Your task to perform on an android device: Show me recent news Image 0: 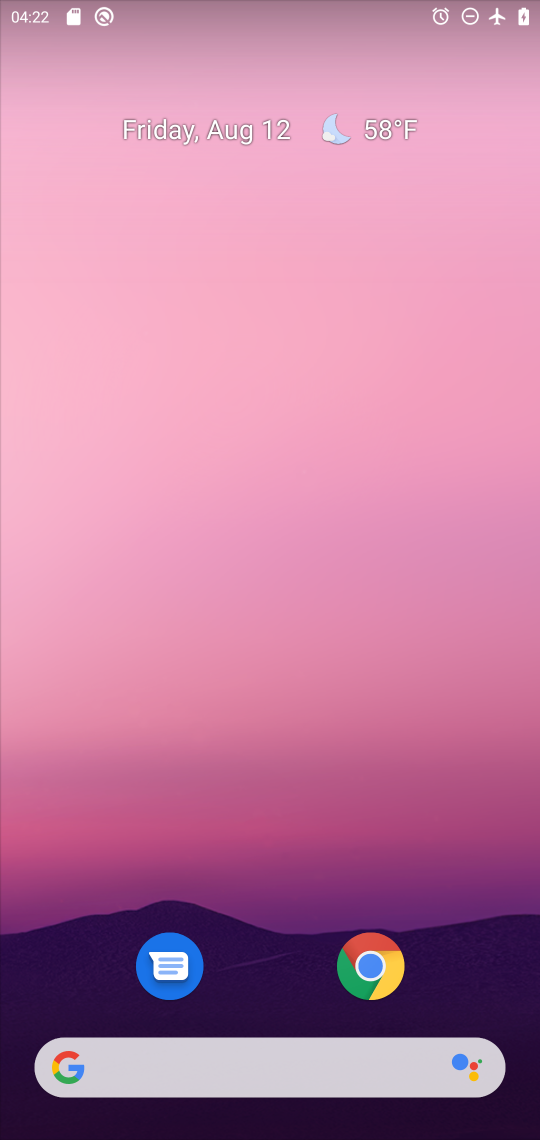
Step 0: drag from (279, 855) to (250, 39)
Your task to perform on an android device: Show me recent news Image 1: 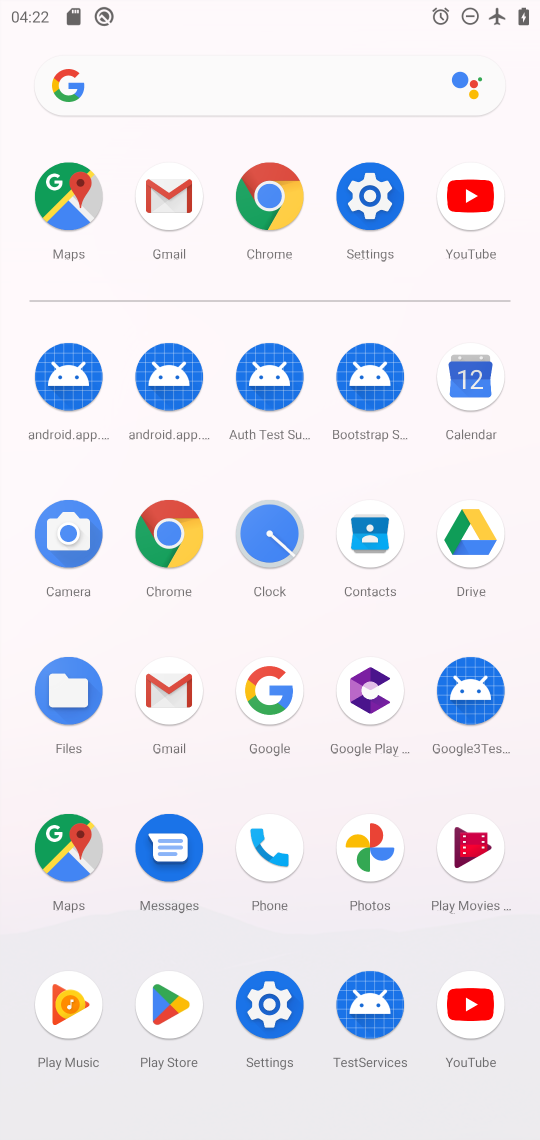
Step 1: click (171, 537)
Your task to perform on an android device: Show me recent news Image 2: 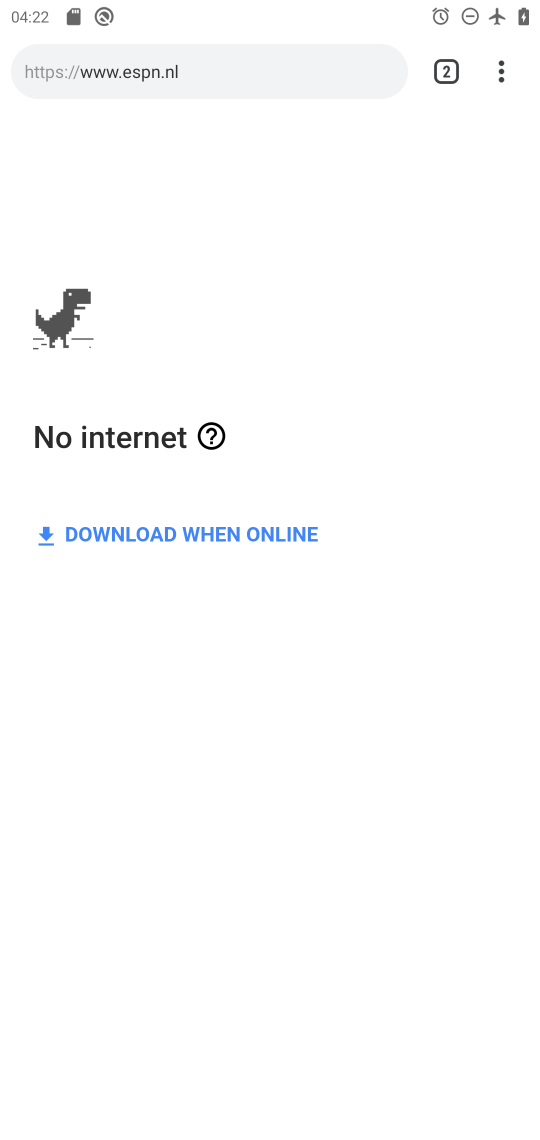
Step 2: click (285, 55)
Your task to perform on an android device: Show me recent news Image 3: 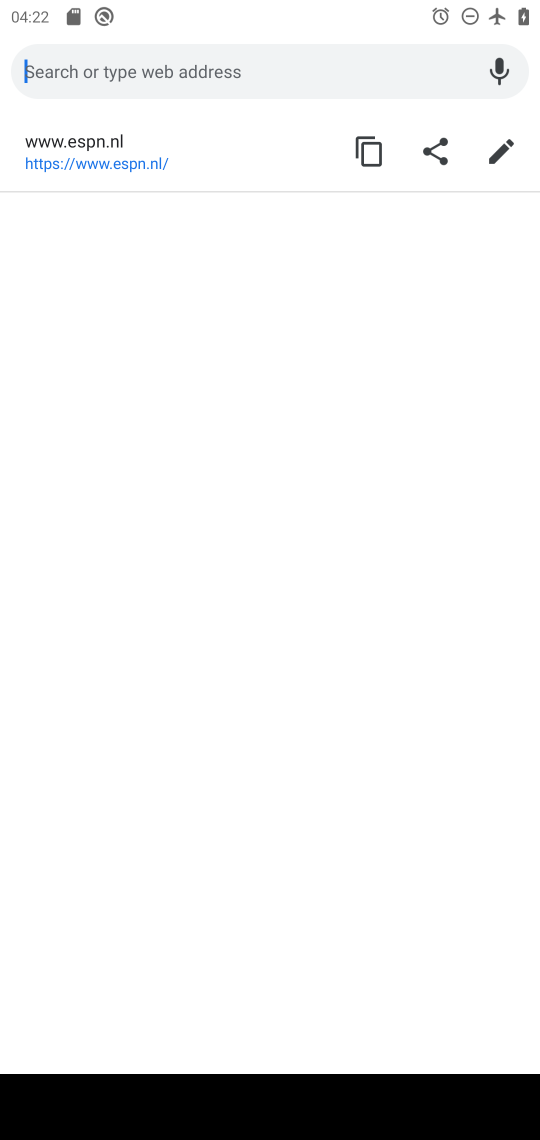
Step 3: type "news"
Your task to perform on an android device: Show me recent news Image 4: 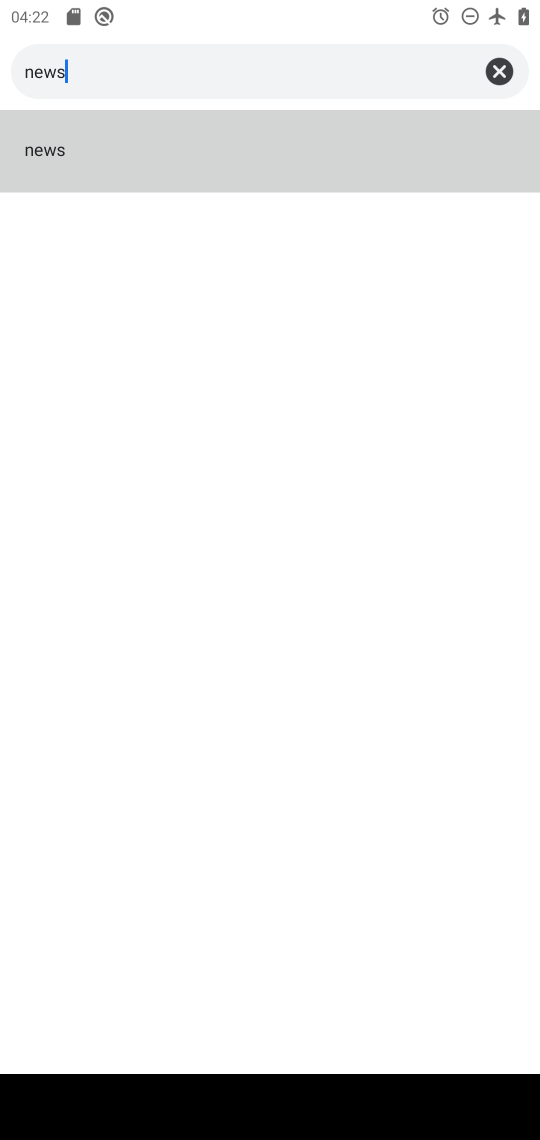
Step 4: click (57, 150)
Your task to perform on an android device: Show me recent news Image 5: 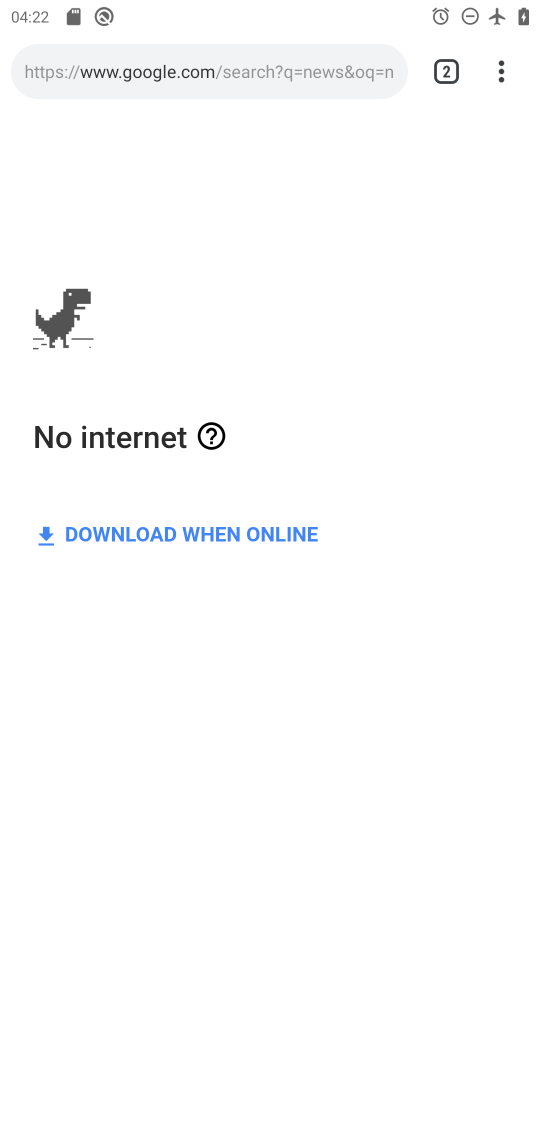
Step 5: task complete